Your task to perform on an android device: stop showing notifications on the lock screen Image 0: 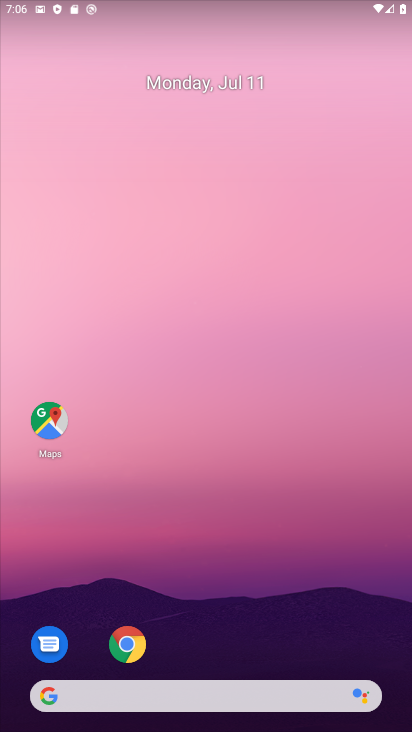
Step 0: drag from (253, 640) to (160, 178)
Your task to perform on an android device: stop showing notifications on the lock screen Image 1: 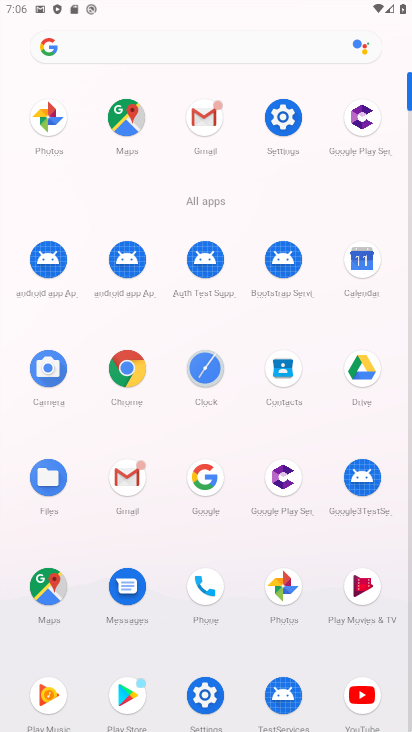
Step 1: click (279, 115)
Your task to perform on an android device: stop showing notifications on the lock screen Image 2: 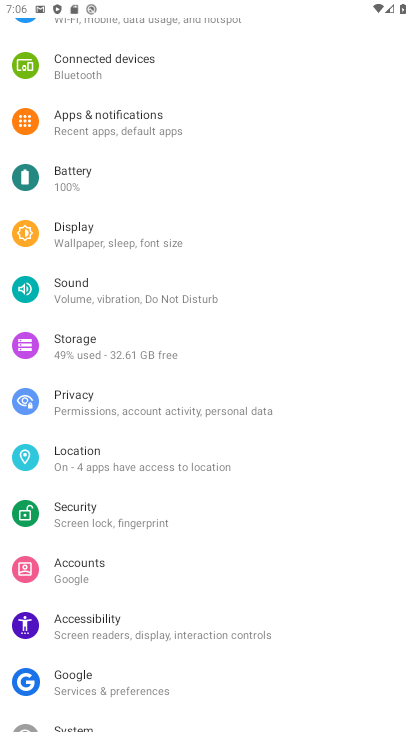
Step 2: click (78, 118)
Your task to perform on an android device: stop showing notifications on the lock screen Image 3: 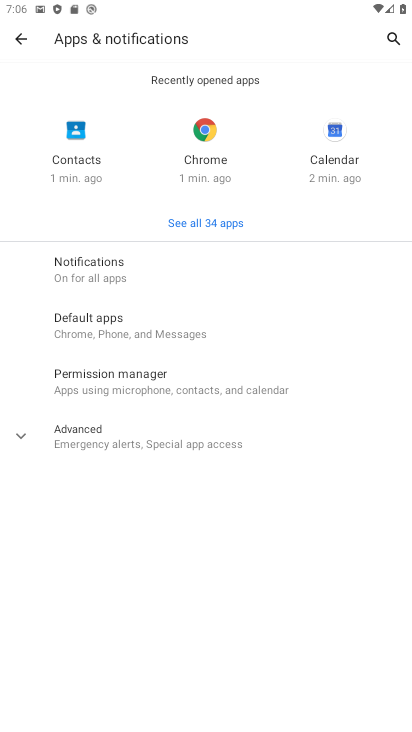
Step 3: click (99, 267)
Your task to perform on an android device: stop showing notifications on the lock screen Image 4: 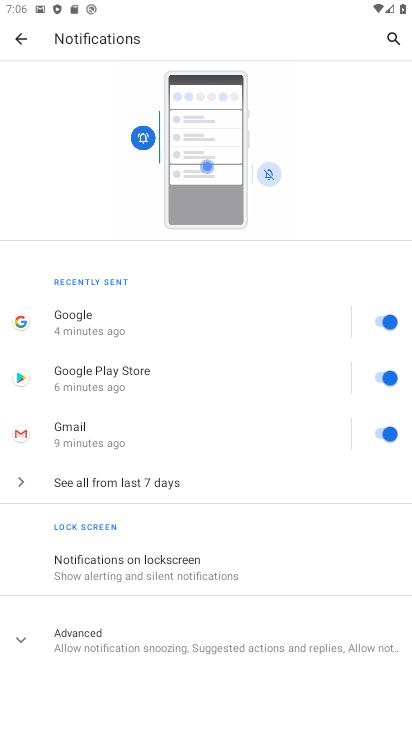
Step 4: click (124, 556)
Your task to perform on an android device: stop showing notifications on the lock screen Image 5: 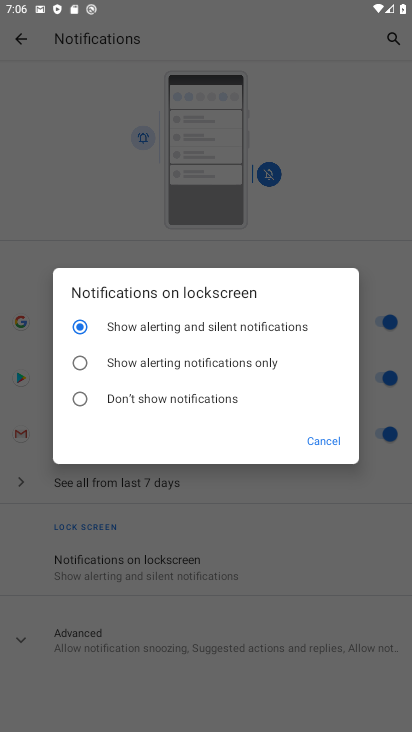
Step 5: click (71, 396)
Your task to perform on an android device: stop showing notifications on the lock screen Image 6: 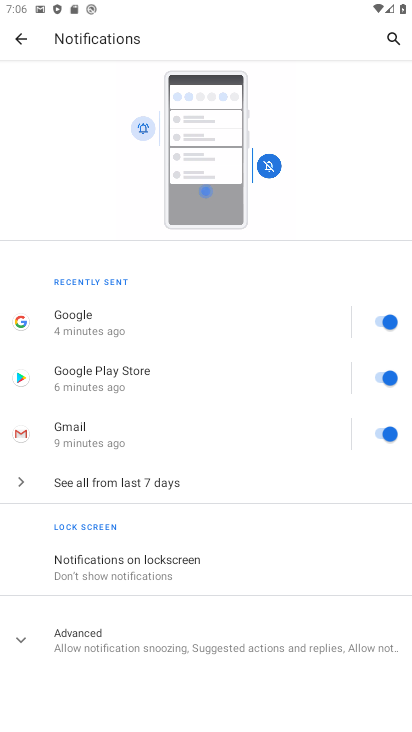
Step 6: task complete